Your task to perform on an android device: turn on data saver in the chrome app Image 0: 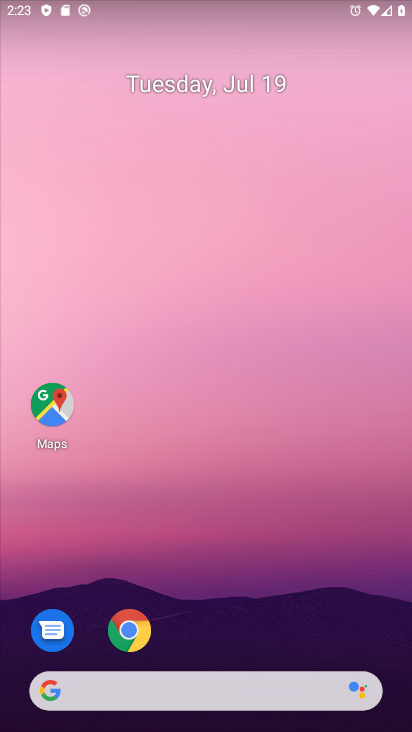
Step 0: click (132, 619)
Your task to perform on an android device: turn on data saver in the chrome app Image 1: 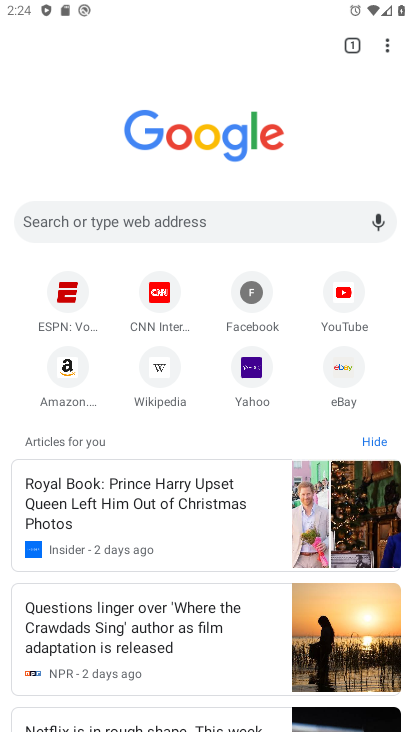
Step 1: click (383, 43)
Your task to perform on an android device: turn on data saver in the chrome app Image 2: 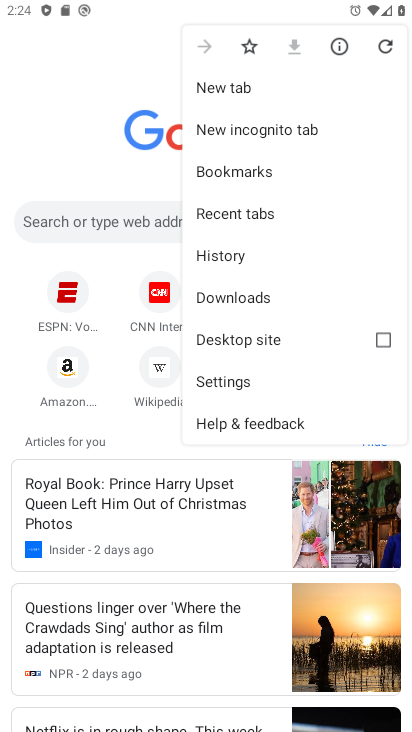
Step 2: click (242, 380)
Your task to perform on an android device: turn on data saver in the chrome app Image 3: 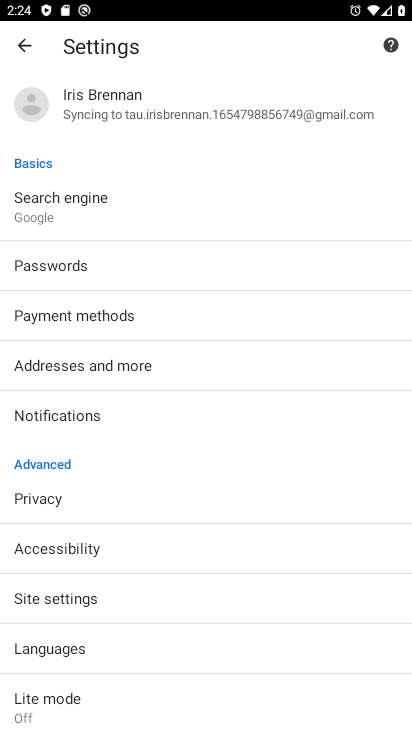
Step 3: click (144, 712)
Your task to perform on an android device: turn on data saver in the chrome app Image 4: 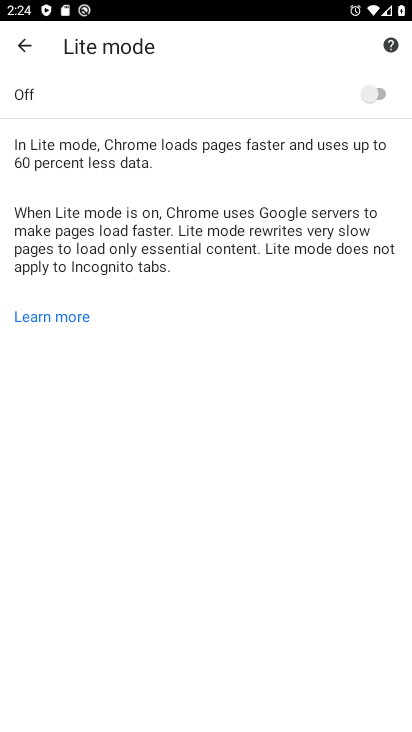
Step 4: click (373, 88)
Your task to perform on an android device: turn on data saver in the chrome app Image 5: 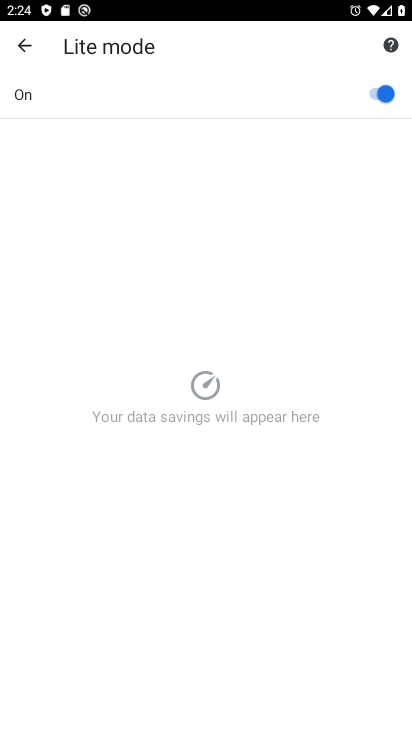
Step 5: task complete